Your task to perform on an android device: What's on my calendar tomorrow? Image 0: 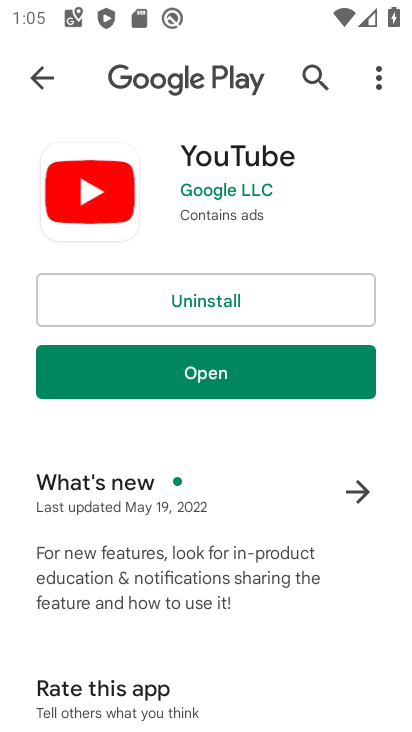
Step 0: press home button
Your task to perform on an android device: What's on my calendar tomorrow? Image 1: 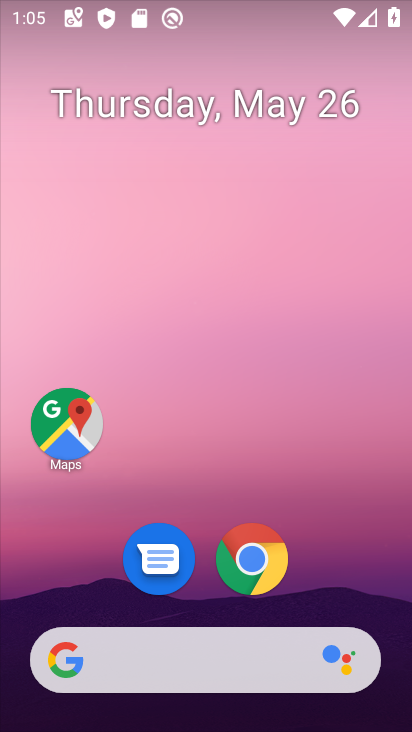
Step 1: drag from (143, 654) to (267, 116)
Your task to perform on an android device: What's on my calendar tomorrow? Image 2: 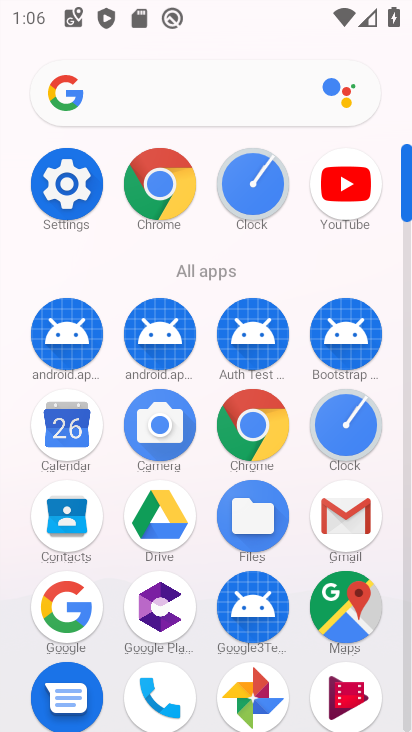
Step 2: click (68, 435)
Your task to perform on an android device: What's on my calendar tomorrow? Image 3: 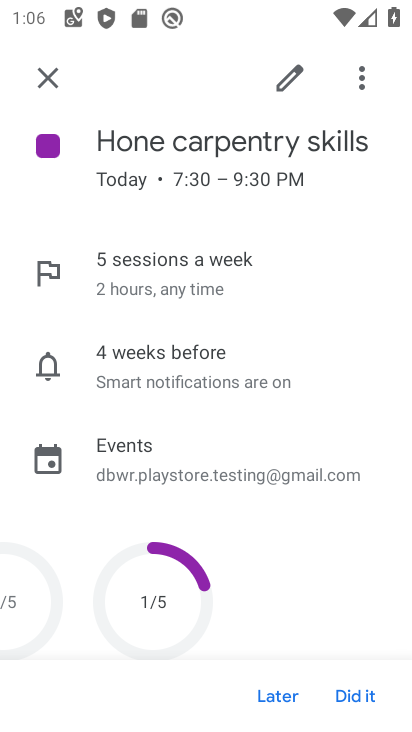
Step 3: click (50, 79)
Your task to perform on an android device: What's on my calendar tomorrow? Image 4: 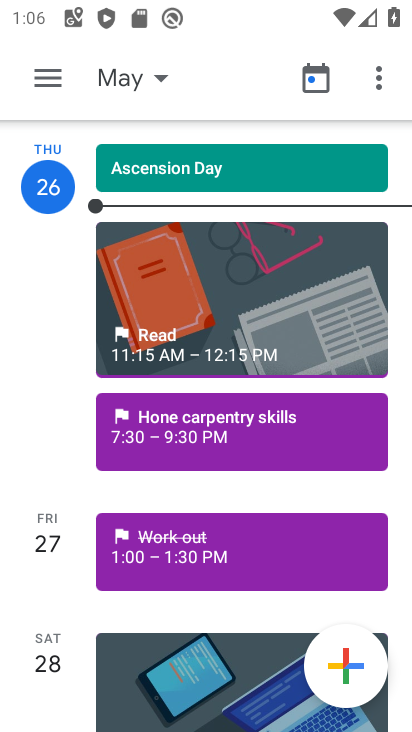
Step 4: click (123, 75)
Your task to perform on an android device: What's on my calendar tomorrow? Image 5: 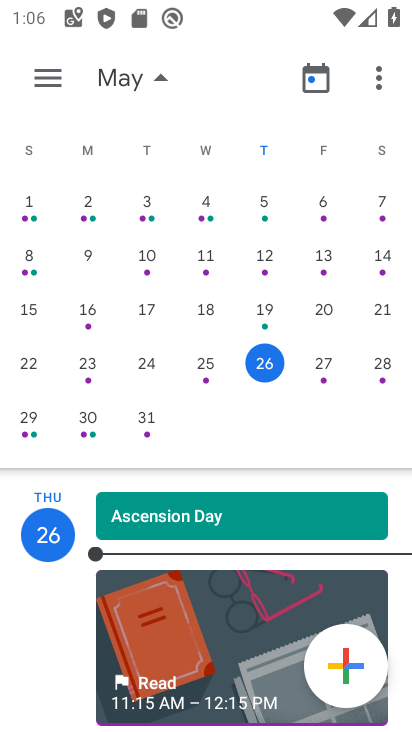
Step 5: click (327, 363)
Your task to perform on an android device: What's on my calendar tomorrow? Image 6: 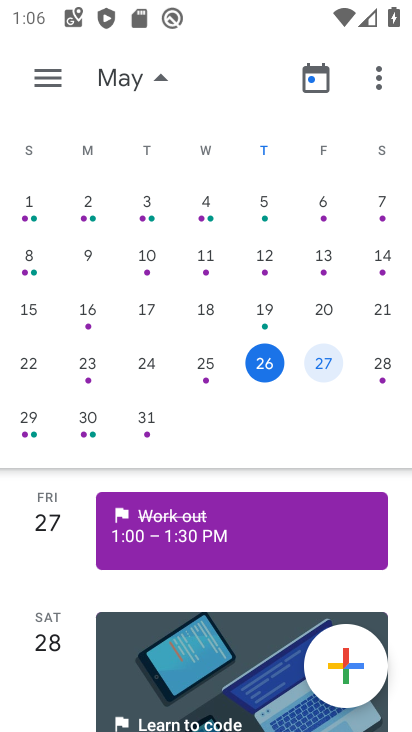
Step 6: click (49, 75)
Your task to perform on an android device: What's on my calendar tomorrow? Image 7: 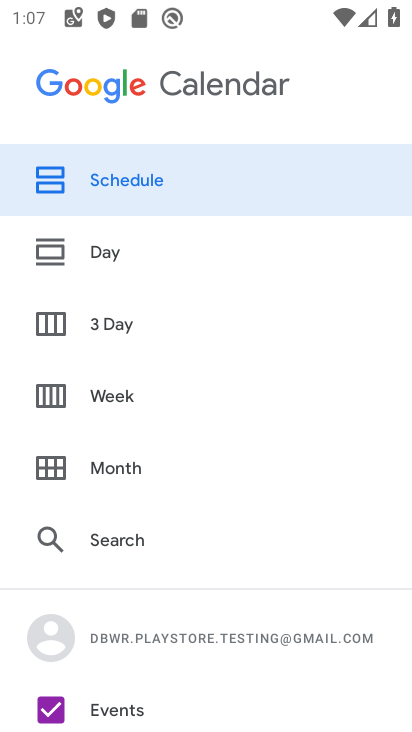
Step 7: click (120, 255)
Your task to perform on an android device: What's on my calendar tomorrow? Image 8: 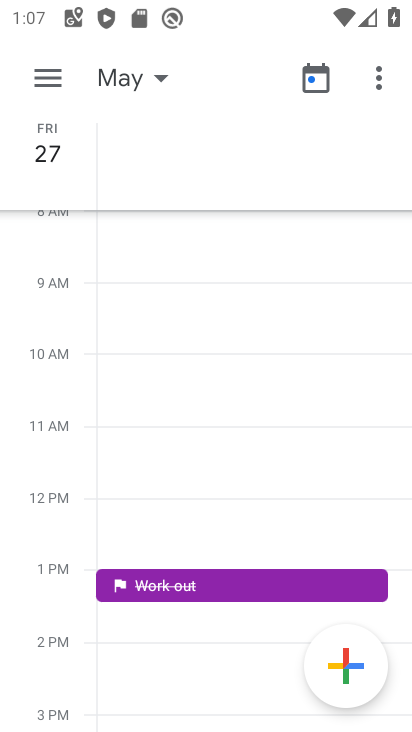
Step 8: click (45, 75)
Your task to perform on an android device: What's on my calendar tomorrow? Image 9: 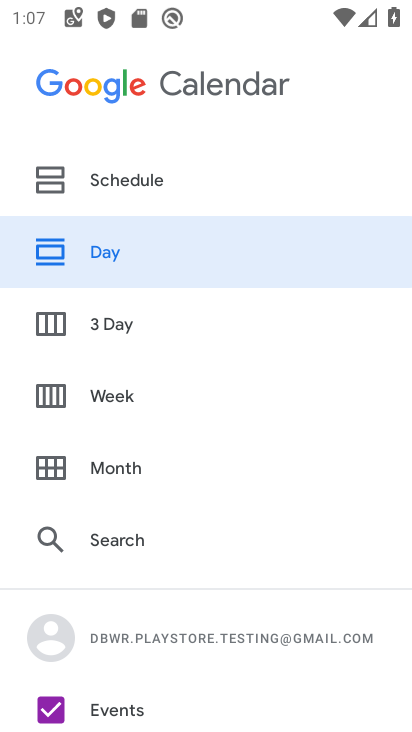
Step 9: click (137, 179)
Your task to perform on an android device: What's on my calendar tomorrow? Image 10: 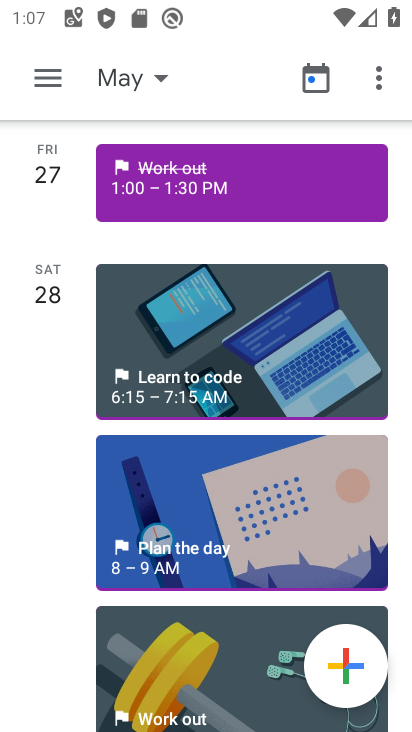
Step 10: click (137, 181)
Your task to perform on an android device: What's on my calendar tomorrow? Image 11: 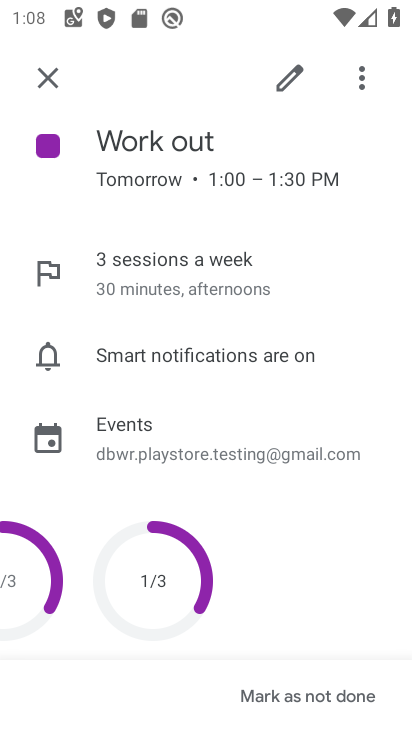
Step 11: task complete